Your task to perform on an android device: check out phone information Image 0: 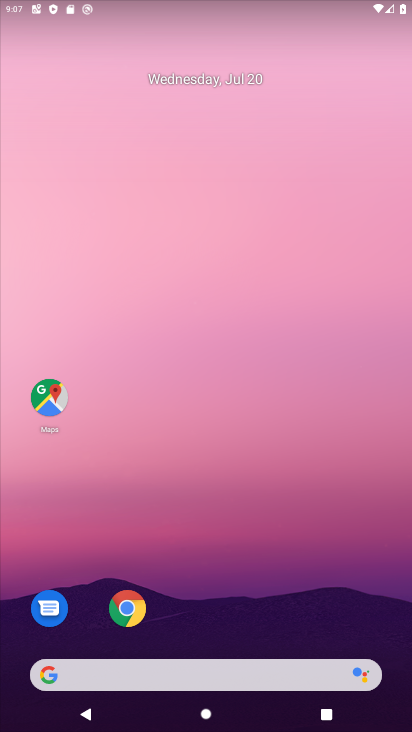
Step 0: drag from (252, 721) to (150, 13)
Your task to perform on an android device: check out phone information Image 1: 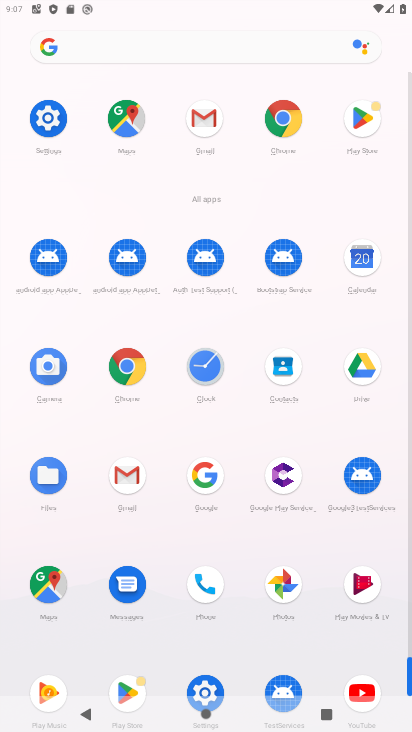
Step 1: click (39, 118)
Your task to perform on an android device: check out phone information Image 2: 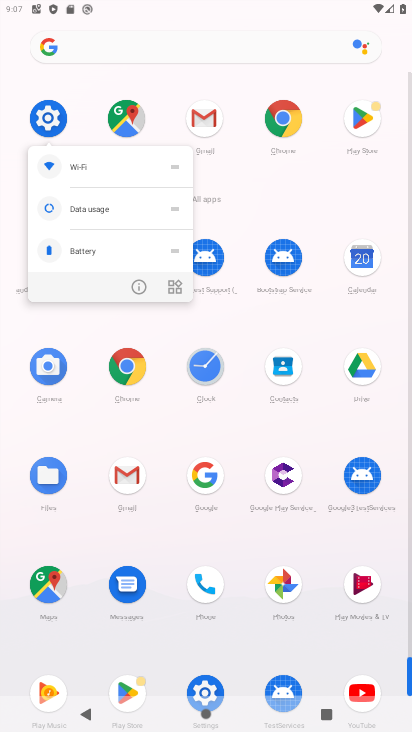
Step 2: click (39, 118)
Your task to perform on an android device: check out phone information Image 3: 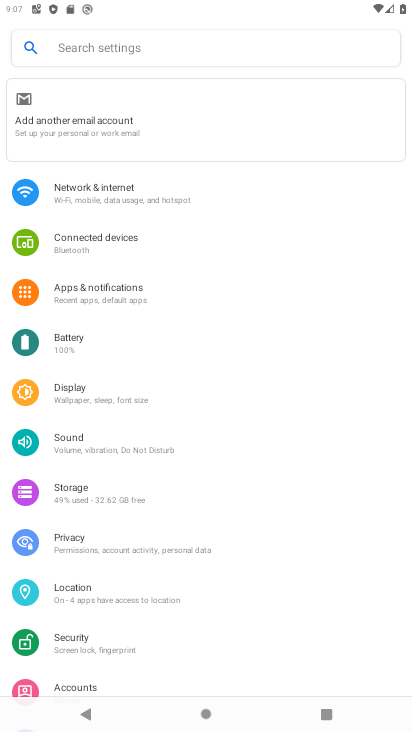
Step 3: drag from (300, 662) to (256, 124)
Your task to perform on an android device: check out phone information Image 4: 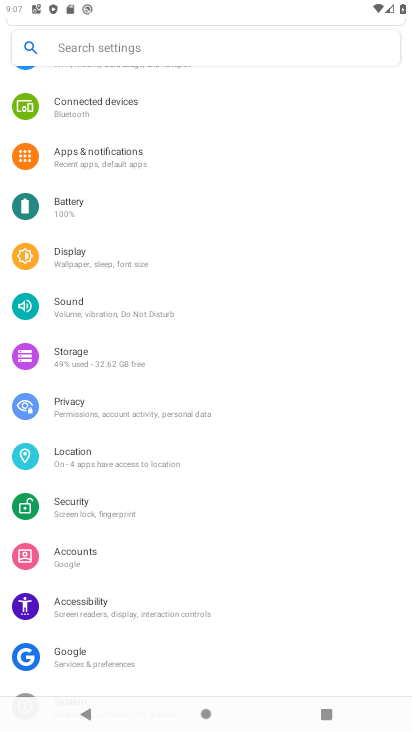
Step 4: drag from (241, 663) to (260, 17)
Your task to perform on an android device: check out phone information Image 5: 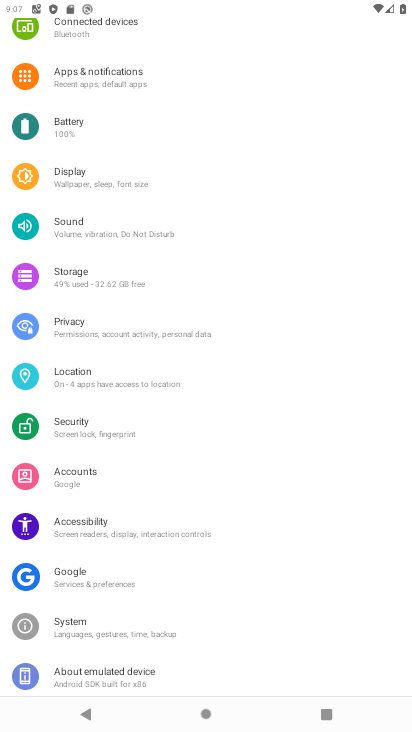
Step 5: drag from (333, 484) to (361, 11)
Your task to perform on an android device: check out phone information Image 6: 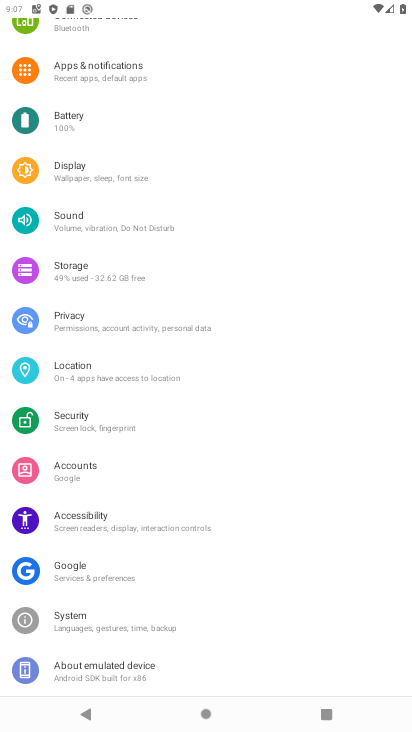
Step 6: click (142, 665)
Your task to perform on an android device: check out phone information Image 7: 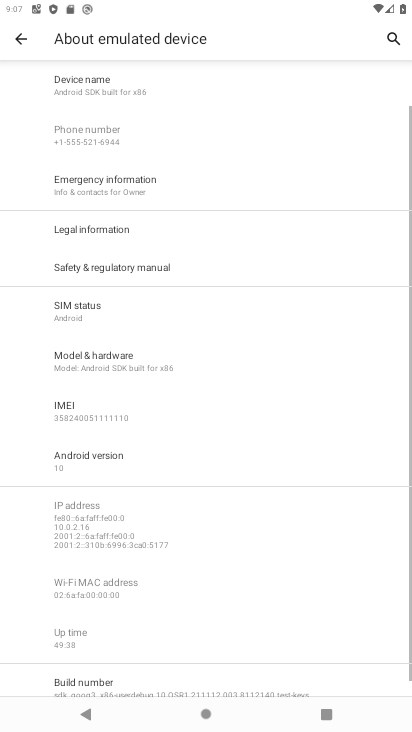
Step 7: task complete